Your task to perform on an android device: change text size in settings app Image 0: 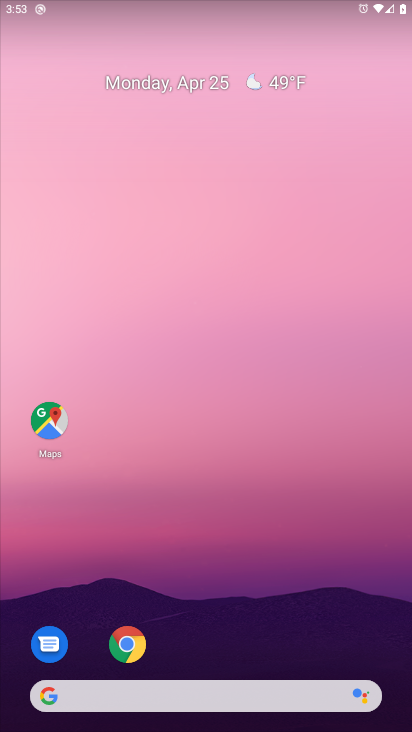
Step 0: drag from (243, 653) to (271, 155)
Your task to perform on an android device: change text size in settings app Image 1: 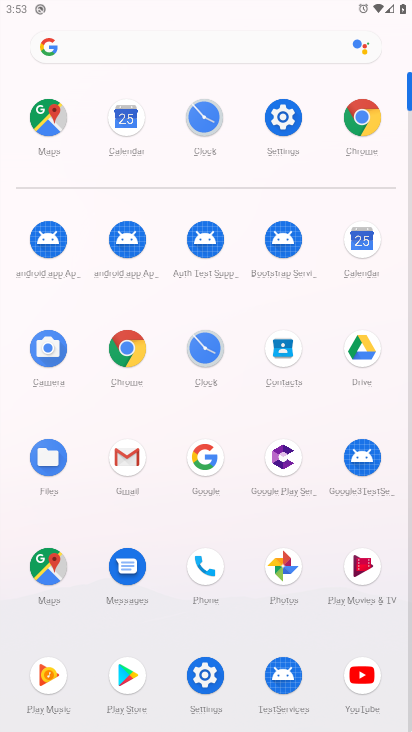
Step 1: click (281, 146)
Your task to perform on an android device: change text size in settings app Image 2: 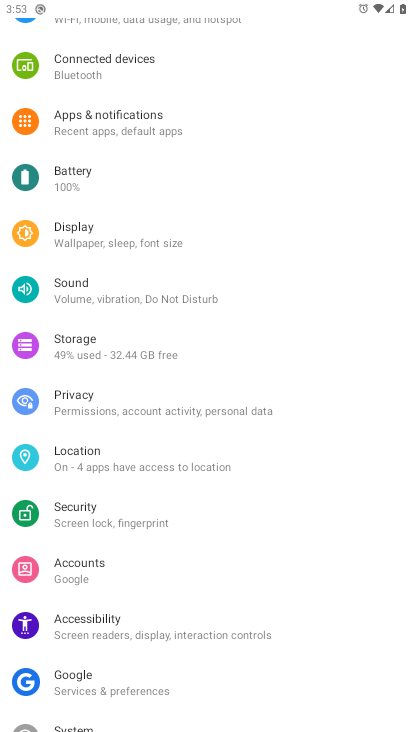
Step 2: click (128, 245)
Your task to perform on an android device: change text size in settings app Image 3: 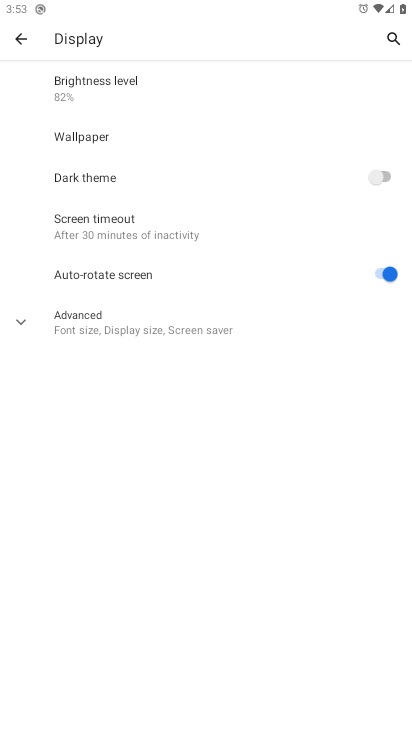
Step 3: click (133, 233)
Your task to perform on an android device: change text size in settings app Image 4: 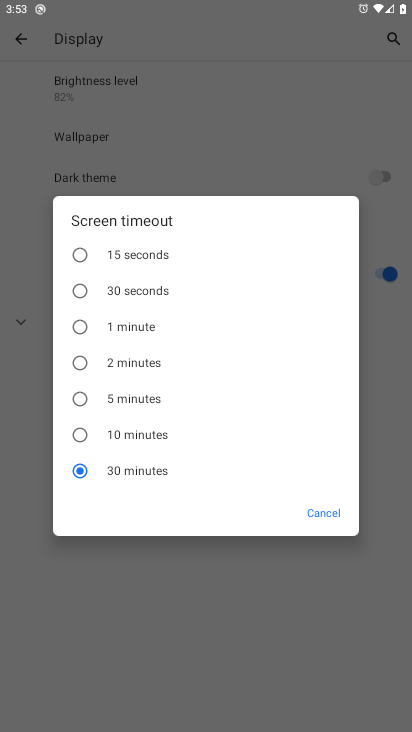
Step 4: click (146, 248)
Your task to perform on an android device: change text size in settings app Image 5: 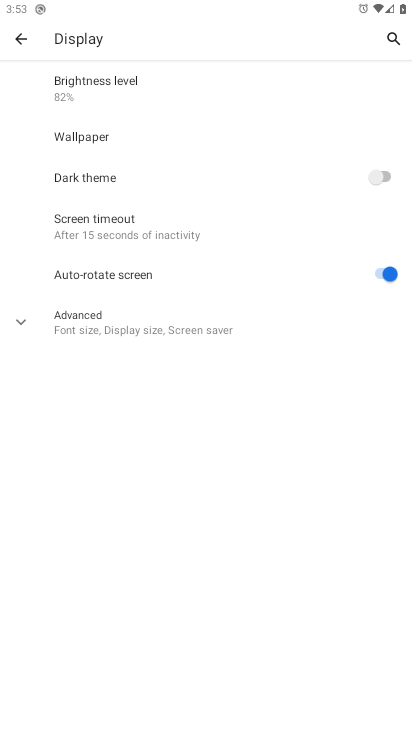
Step 5: task complete